Your task to perform on an android device: turn on translation in the chrome app Image 0: 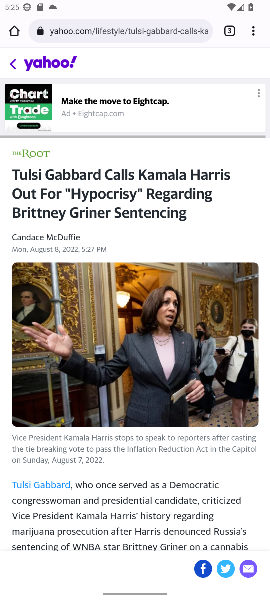
Step 0: press home button
Your task to perform on an android device: turn on translation in the chrome app Image 1: 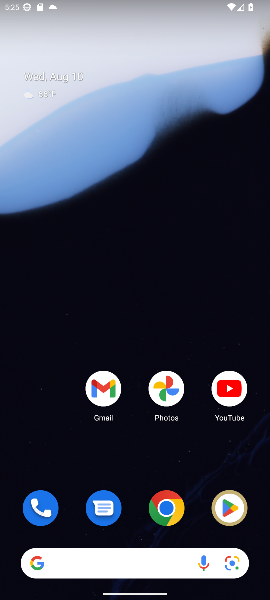
Step 1: click (171, 509)
Your task to perform on an android device: turn on translation in the chrome app Image 2: 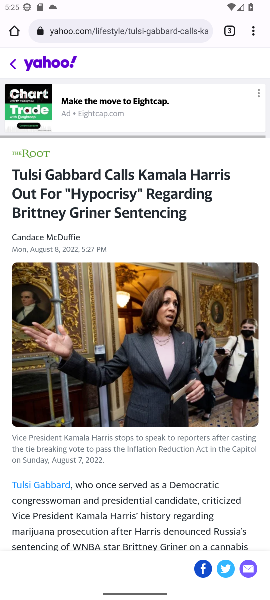
Step 2: drag from (254, 29) to (149, 392)
Your task to perform on an android device: turn on translation in the chrome app Image 3: 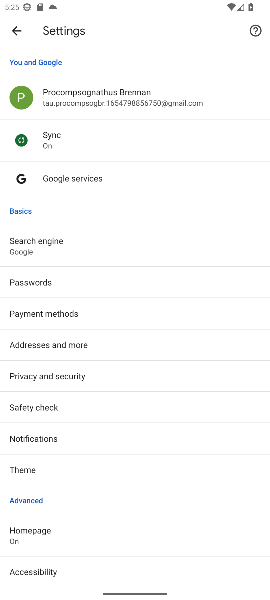
Step 3: drag from (153, 492) to (153, 202)
Your task to perform on an android device: turn on translation in the chrome app Image 4: 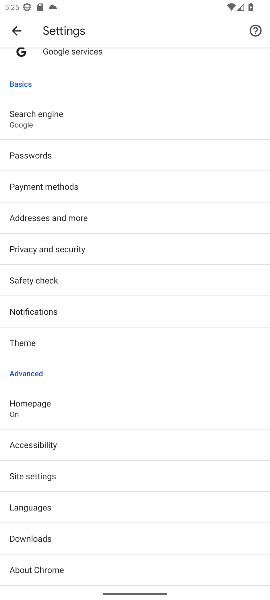
Step 4: click (29, 509)
Your task to perform on an android device: turn on translation in the chrome app Image 5: 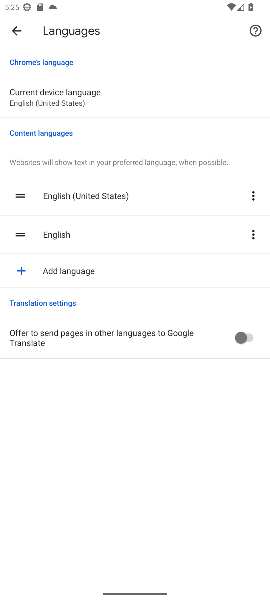
Step 5: click (234, 327)
Your task to perform on an android device: turn on translation in the chrome app Image 6: 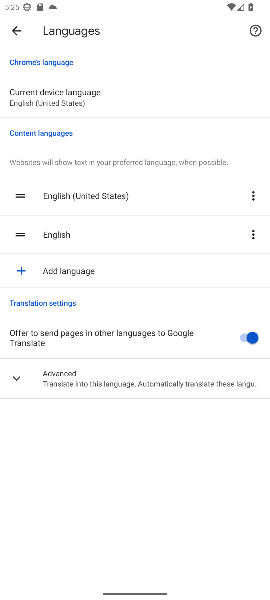
Step 6: task complete